Your task to perform on an android device: empty trash in the gmail app Image 0: 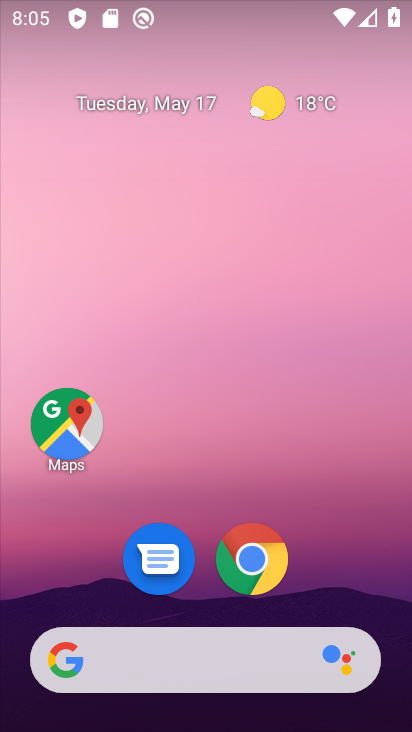
Step 0: drag from (161, 651) to (192, 99)
Your task to perform on an android device: empty trash in the gmail app Image 1: 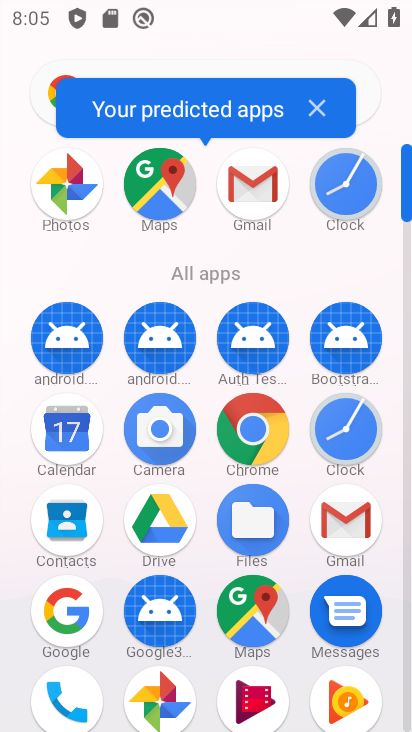
Step 1: click (346, 545)
Your task to perform on an android device: empty trash in the gmail app Image 2: 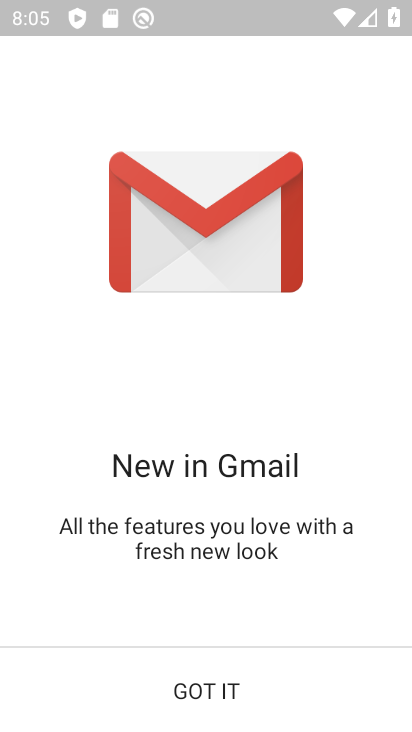
Step 2: click (212, 688)
Your task to perform on an android device: empty trash in the gmail app Image 3: 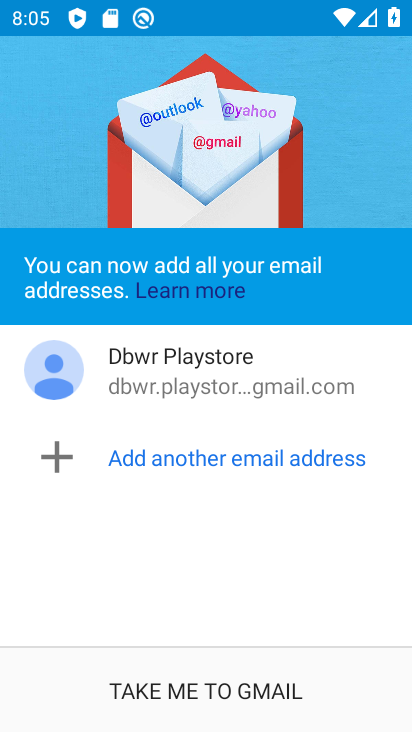
Step 3: click (168, 672)
Your task to perform on an android device: empty trash in the gmail app Image 4: 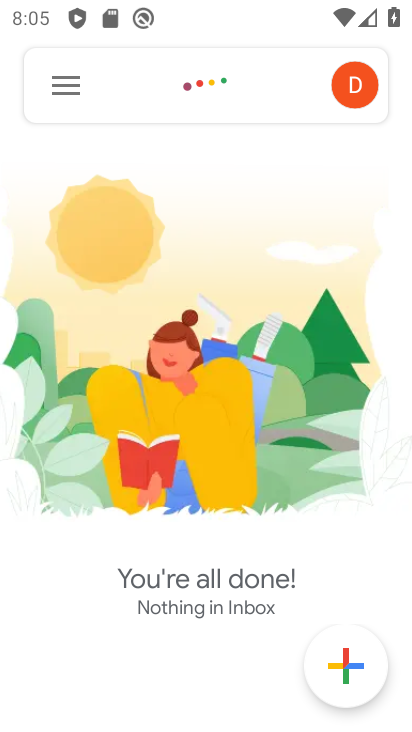
Step 4: click (61, 99)
Your task to perform on an android device: empty trash in the gmail app Image 5: 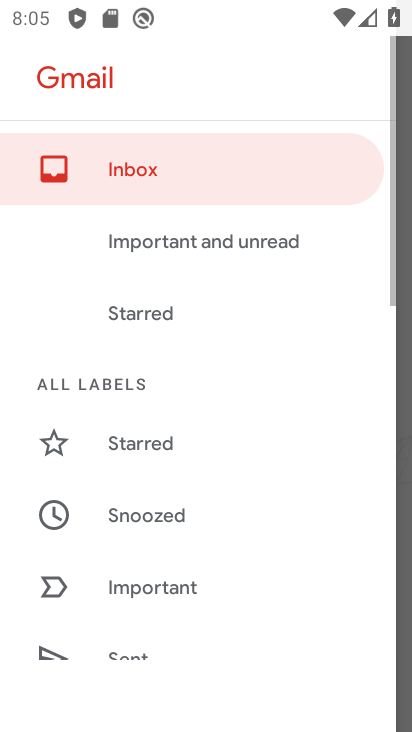
Step 5: drag from (163, 600) to (138, 158)
Your task to perform on an android device: empty trash in the gmail app Image 6: 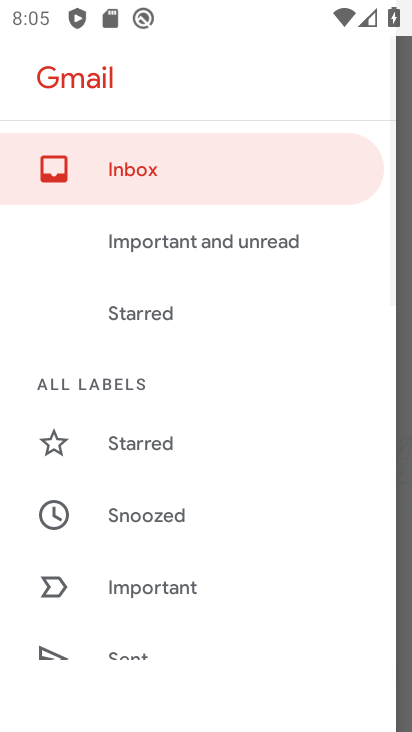
Step 6: drag from (211, 561) to (233, 198)
Your task to perform on an android device: empty trash in the gmail app Image 7: 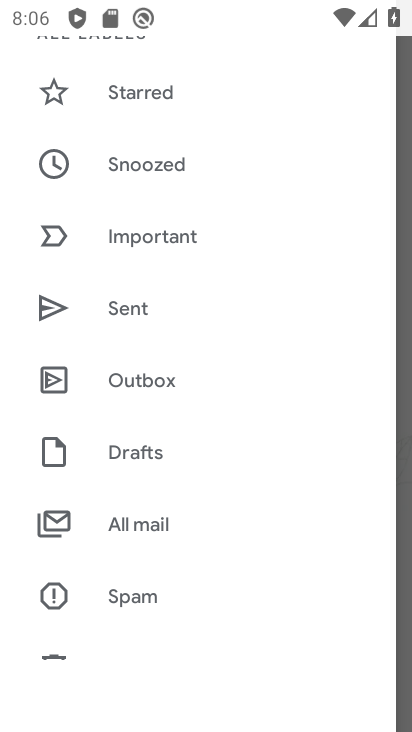
Step 7: drag from (147, 568) to (122, 218)
Your task to perform on an android device: empty trash in the gmail app Image 8: 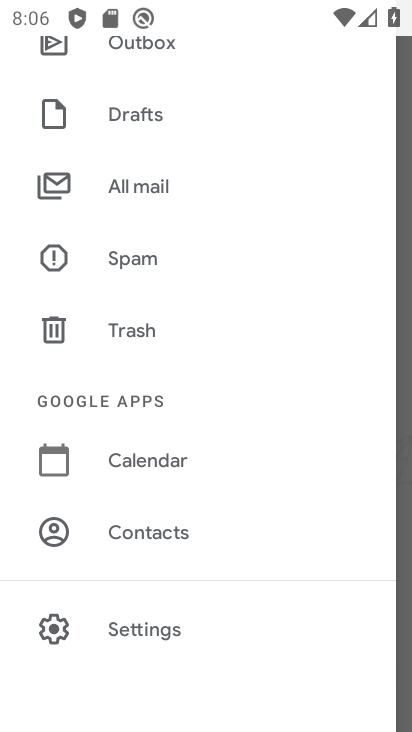
Step 8: click (152, 324)
Your task to perform on an android device: empty trash in the gmail app Image 9: 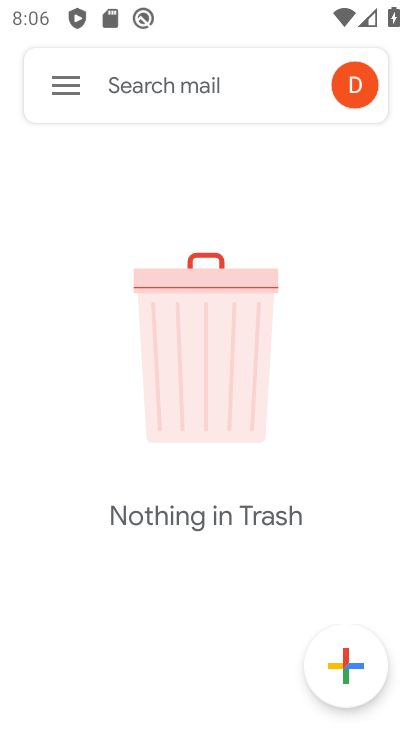
Step 9: task complete